Your task to perform on an android device: How do I get to the nearest Burger King? Image 0: 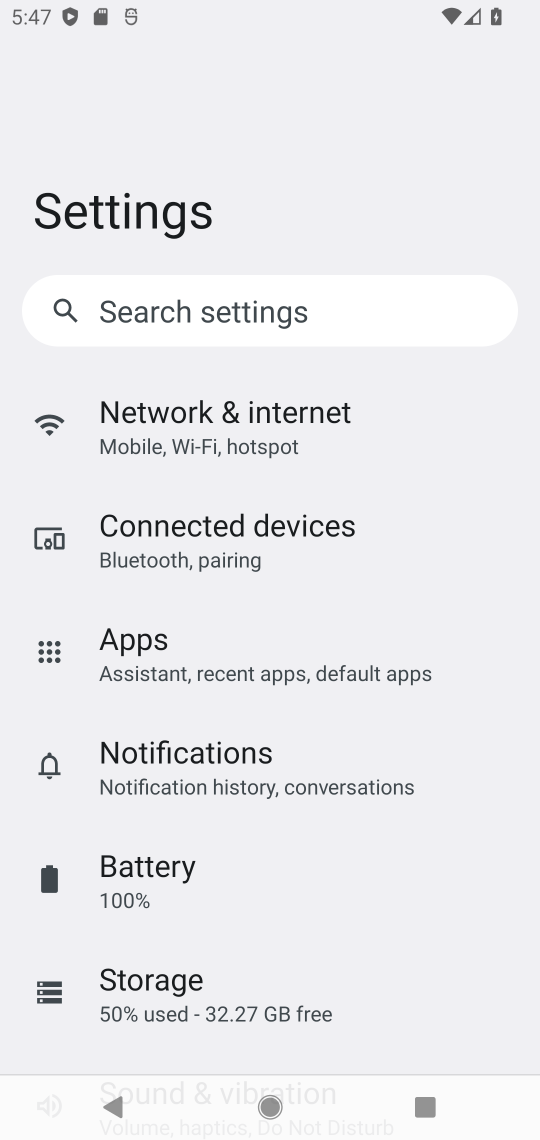
Step 0: press home button
Your task to perform on an android device: How do I get to the nearest Burger King? Image 1: 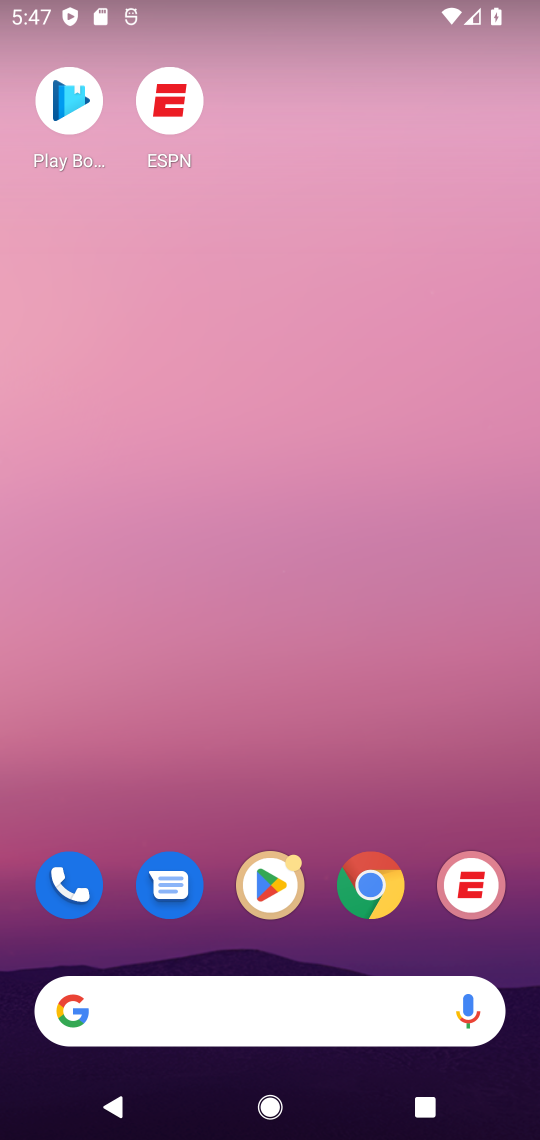
Step 1: click (284, 886)
Your task to perform on an android device: How do I get to the nearest Burger King? Image 2: 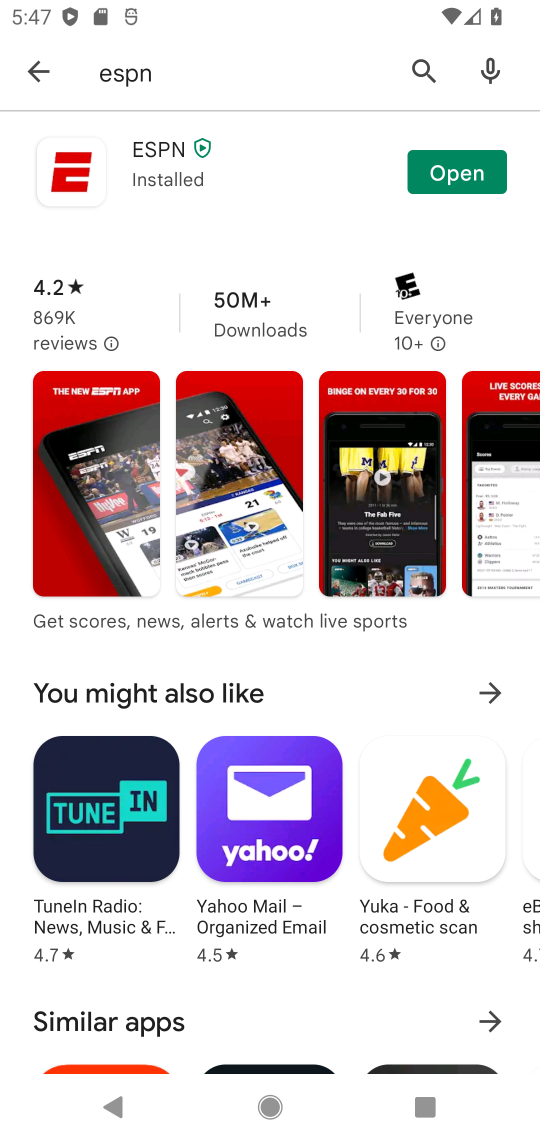
Step 2: click (41, 69)
Your task to perform on an android device: How do I get to the nearest Burger King? Image 3: 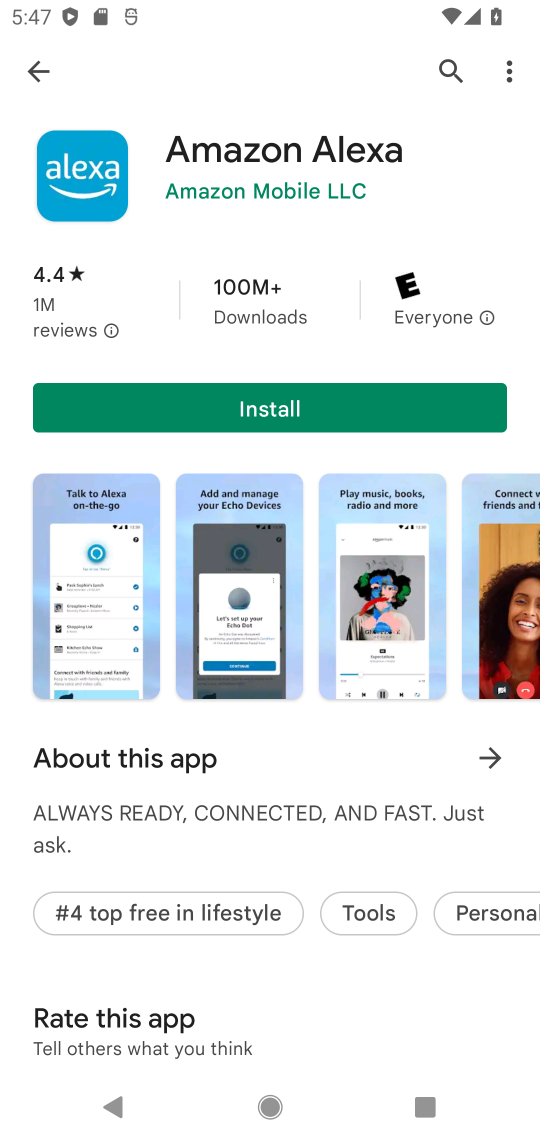
Step 3: click (271, 1108)
Your task to perform on an android device: How do I get to the nearest Burger King? Image 4: 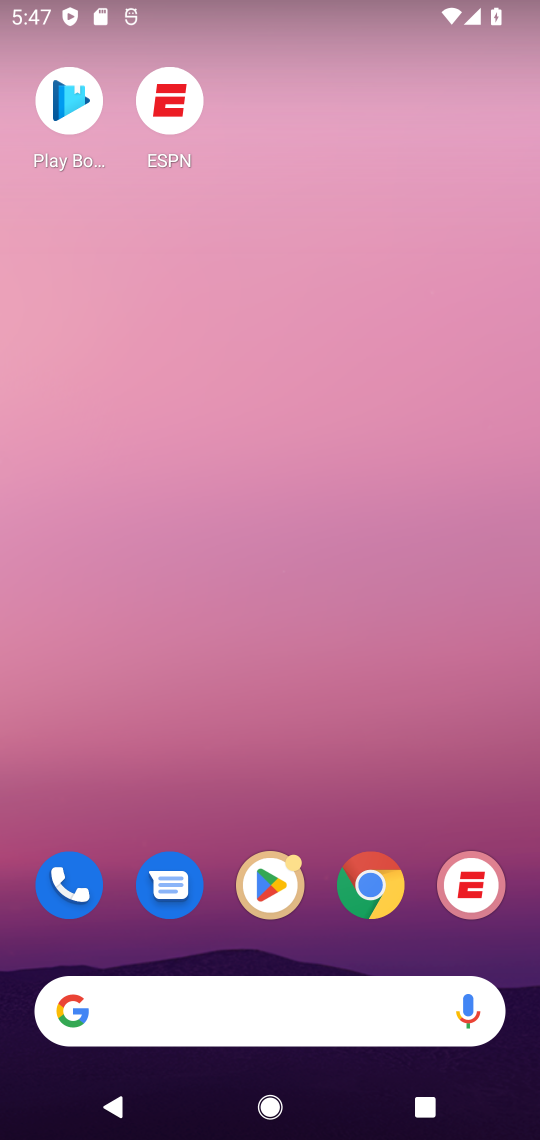
Step 4: drag from (329, 954) to (259, 469)
Your task to perform on an android device: How do I get to the nearest Burger King? Image 5: 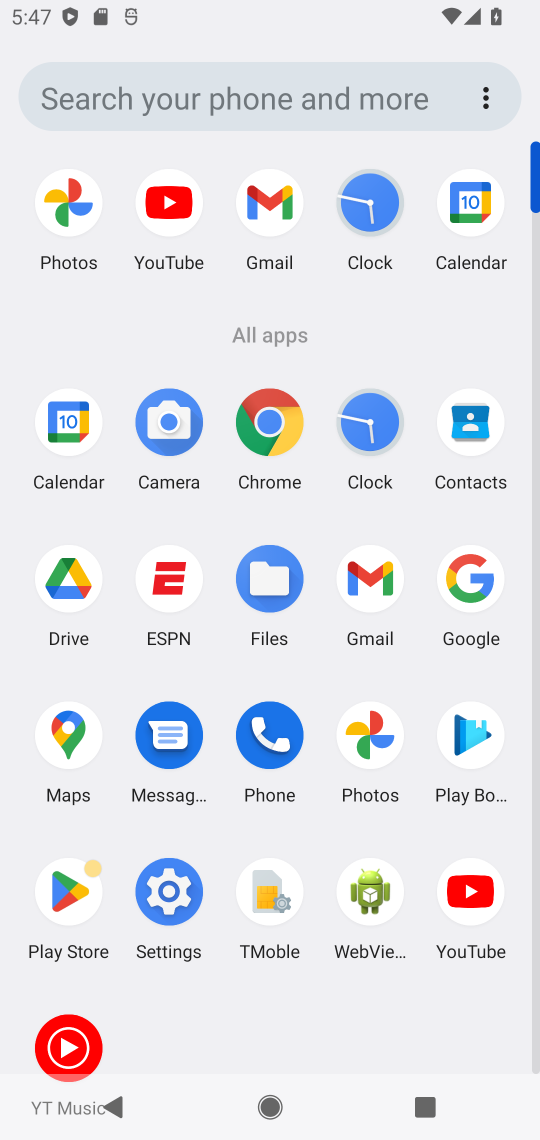
Step 5: click (71, 738)
Your task to perform on an android device: How do I get to the nearest Burger King? Image 6: 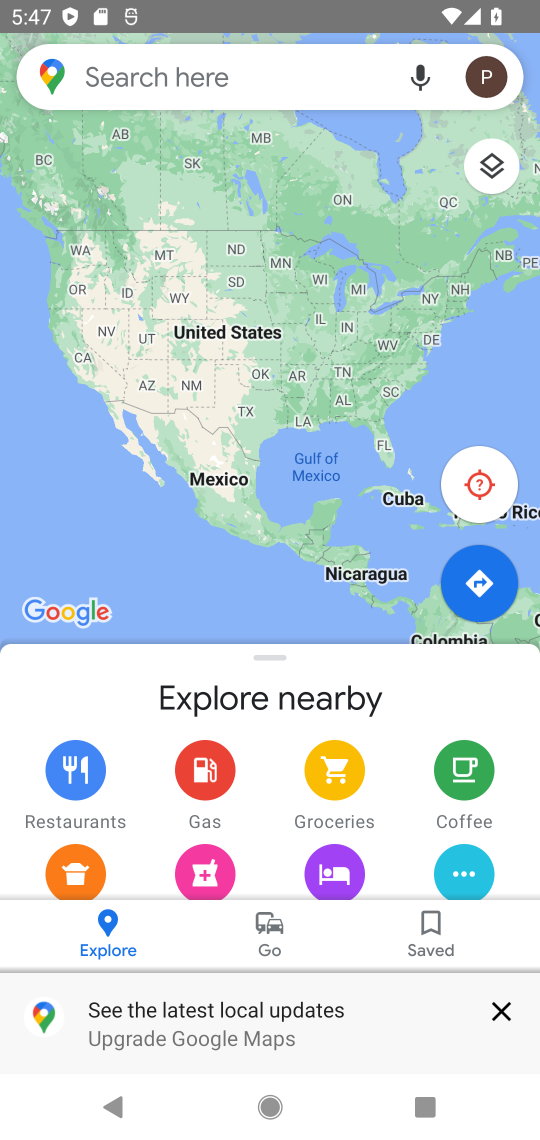
Step 6: click (282, 79)
Your task to perform on an android device: How do I get to the nearest Burger King? Image 7: 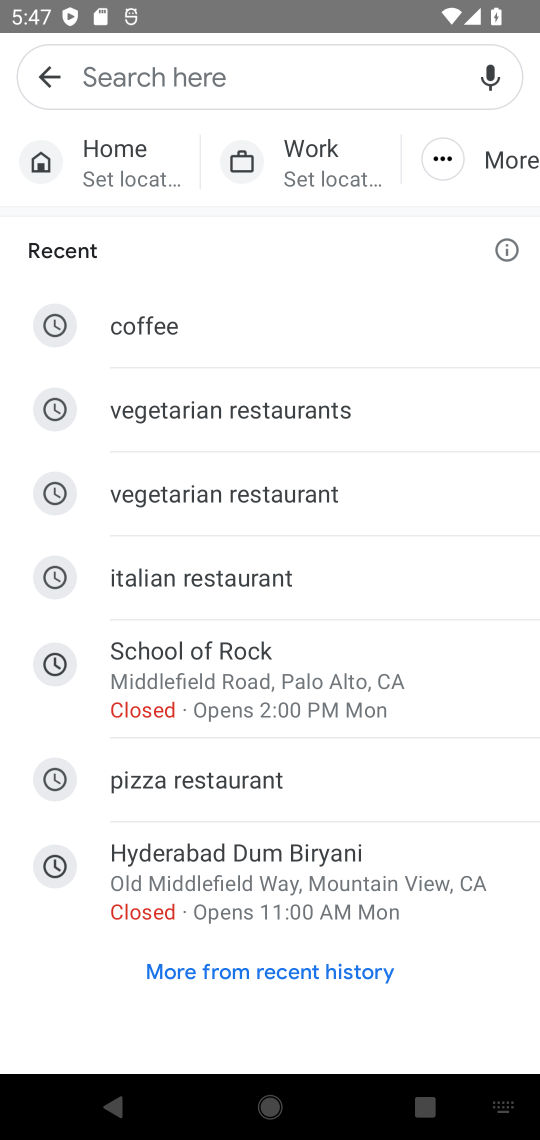
Step 7: type "Burger King"
Your task to perform on an android device: How do I get to the nearest Burger King? Image 8: 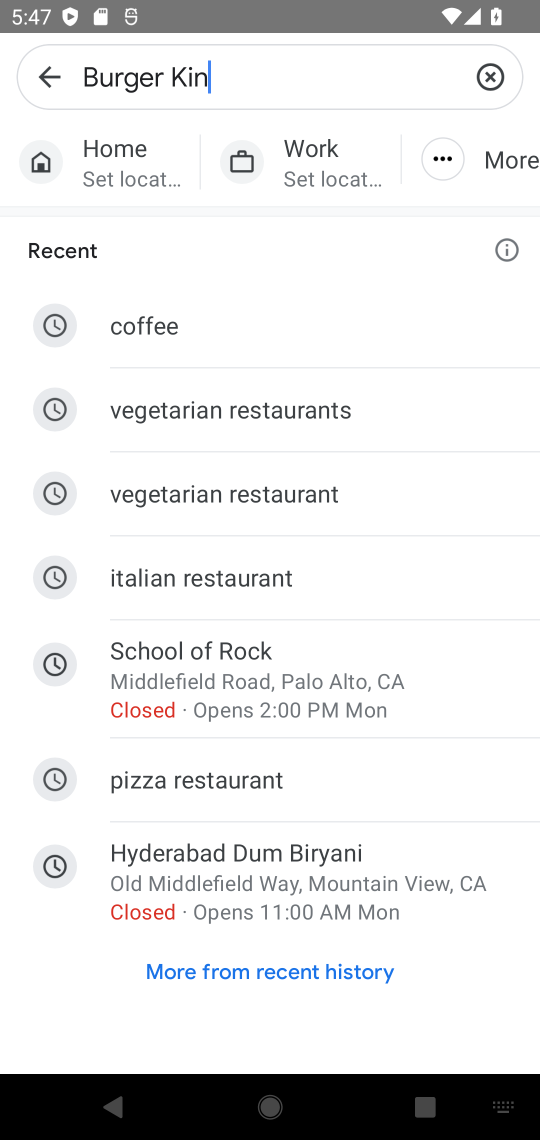
Step 8: type ""
Your task to perform on an android device: How do I get to the nearest Burger King? Image 9: 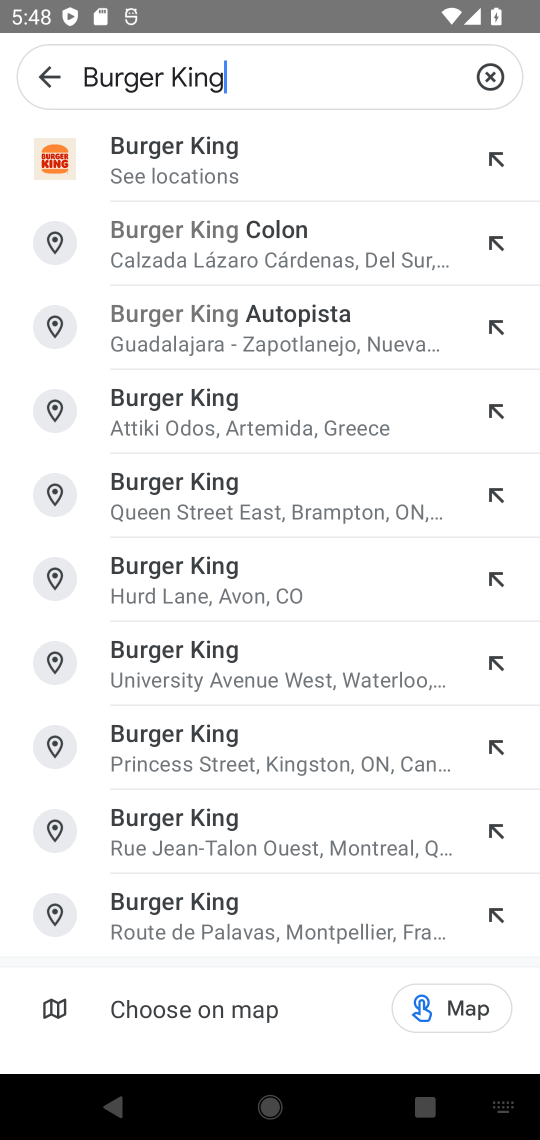
Step 9: click (209, 166)
Your task to perform on an android device: How do I get to the nearest Burger King? Image 10: 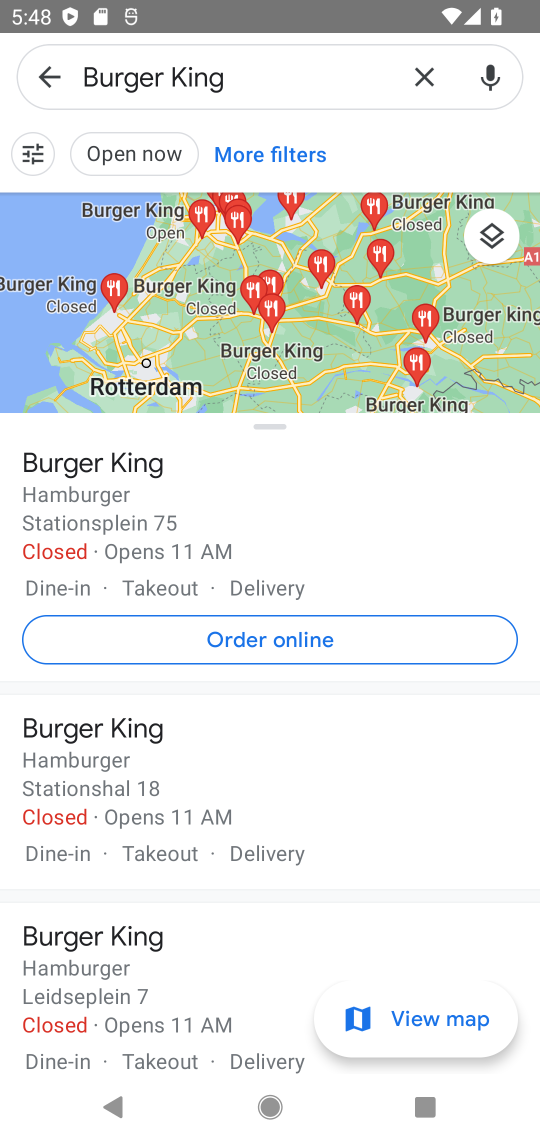
Step 10: task complete